Your task to perform on an android device: uninstall "Messages" Image 0: 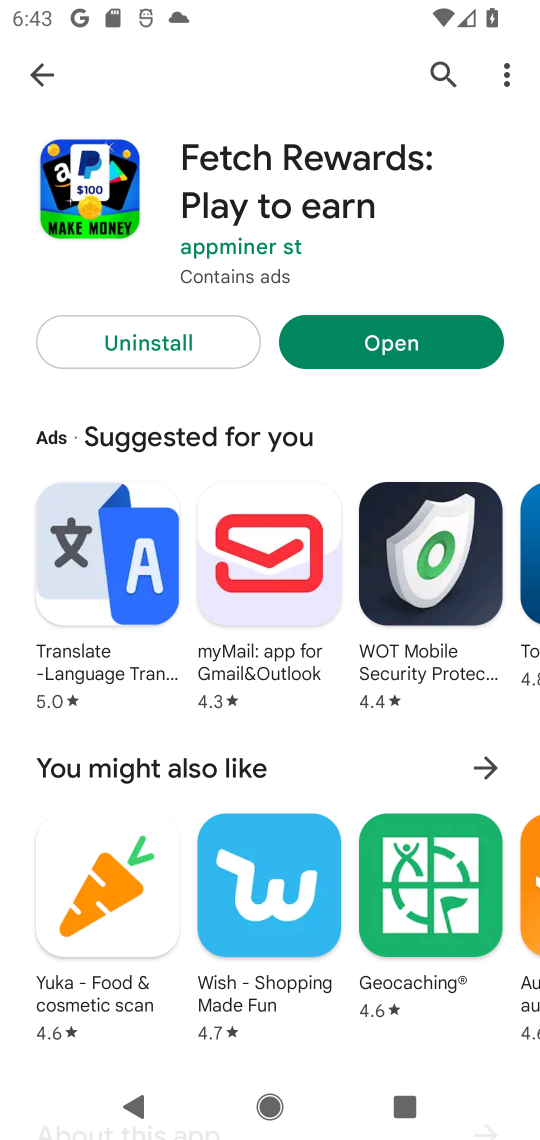
Step 0: press home button
Your task to perform on an android device: uninstall "Messages" Image 1: 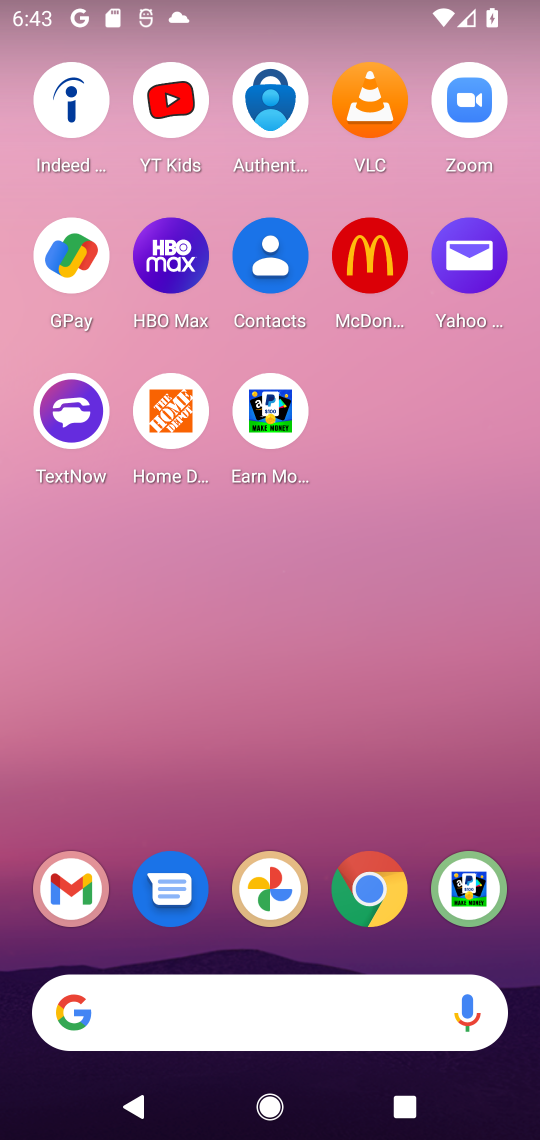
Step 1: press home button
Your task to perform on an android device: uninstall "Messages" Image 2: 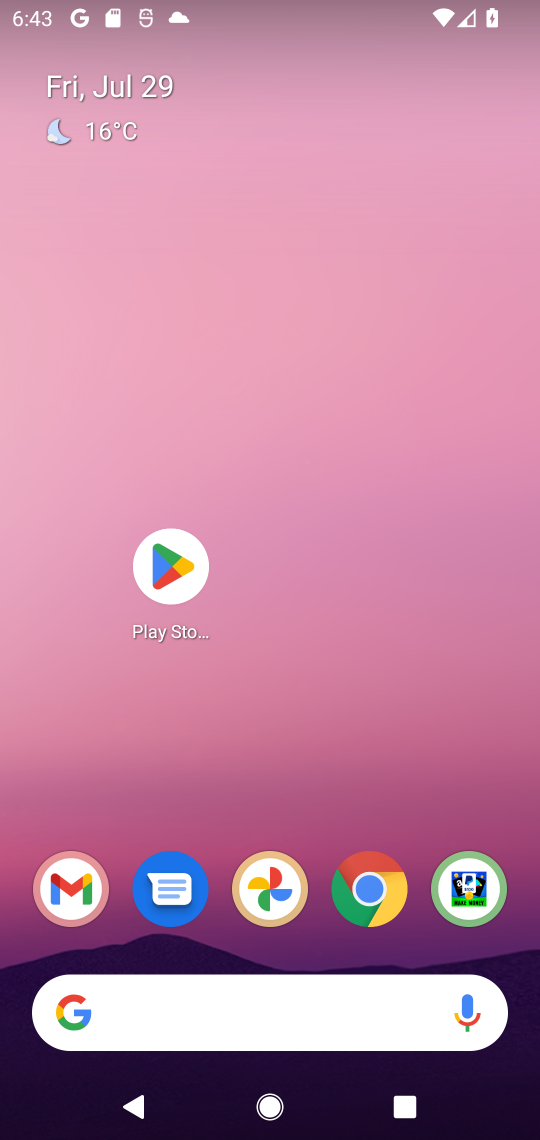
Step 2: click (147, 554)
Your task to perform on an android device: uninstall "Messages" Image 3: 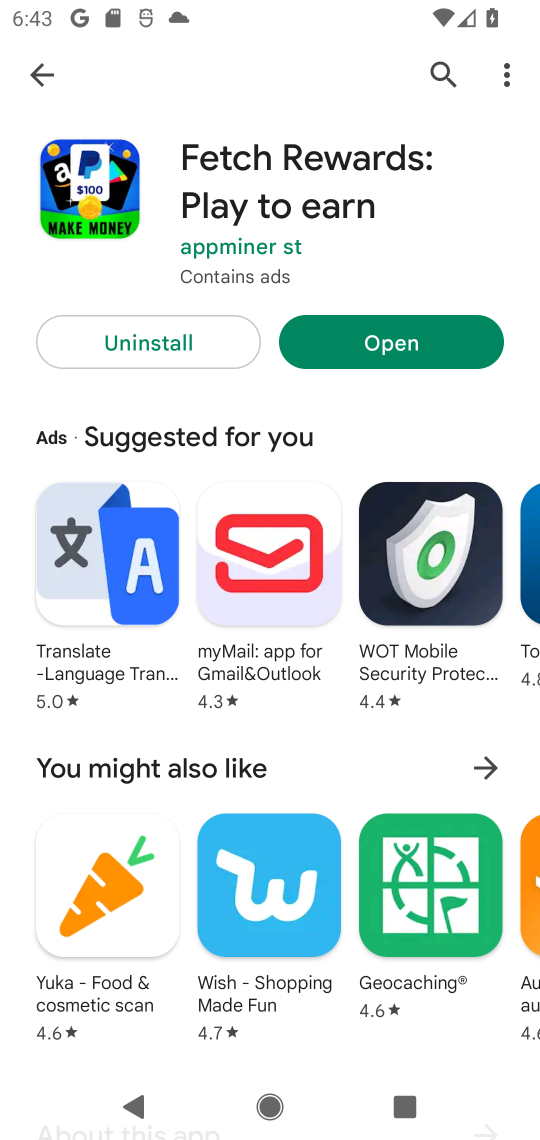
Step 3: click (434, 62)
Your task to perform on an android device: uninstall "Messages" Image 4: 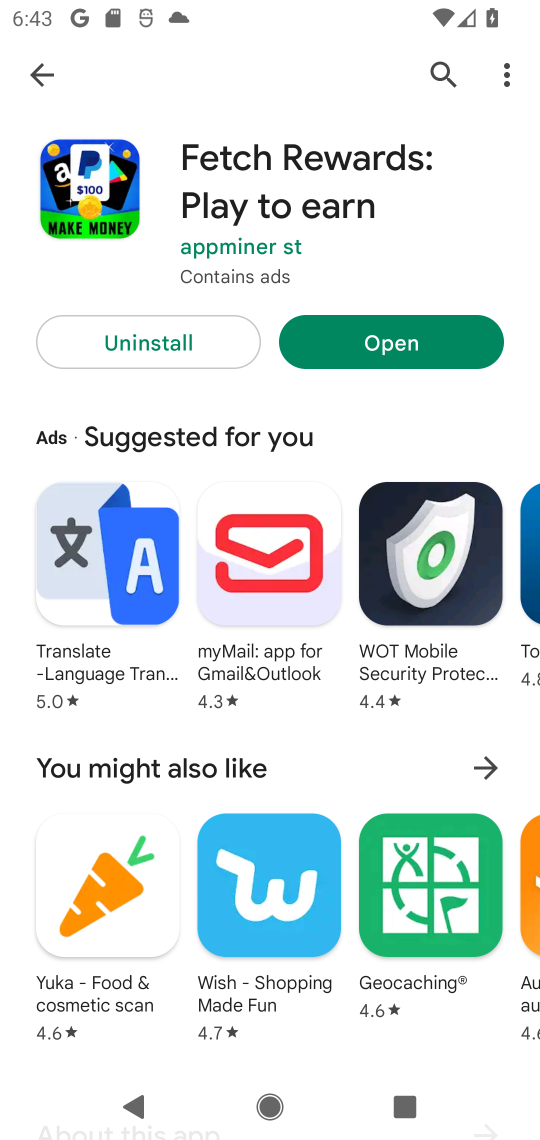
Step 4: click (442, 73)
Your task to perform on an android device: uninstall "Messages" Image 5: 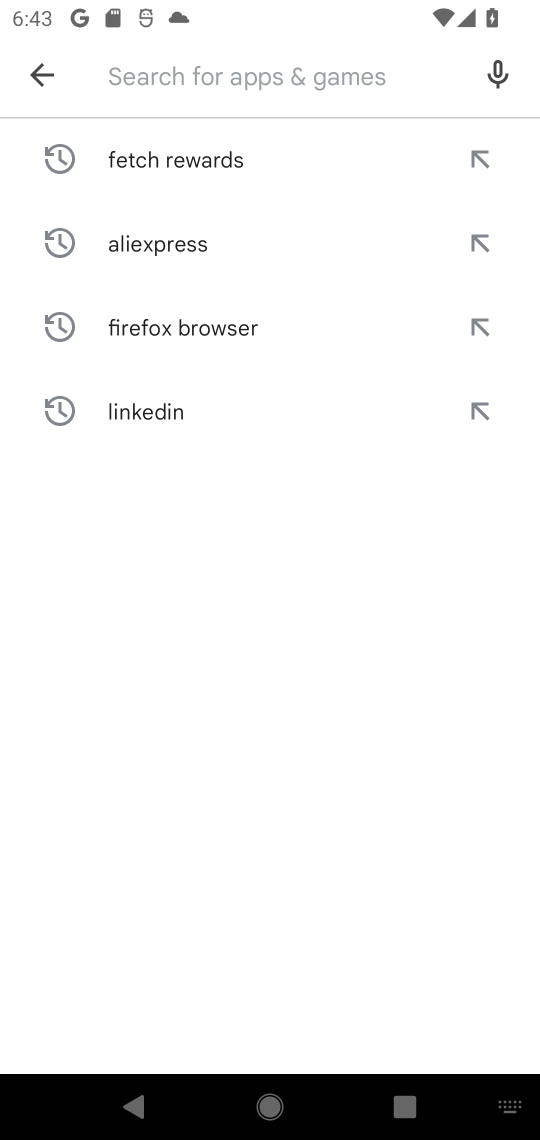
Step 5: type "Messages"
Your task to perform on an android device: uninstall "Messages" Image 6: 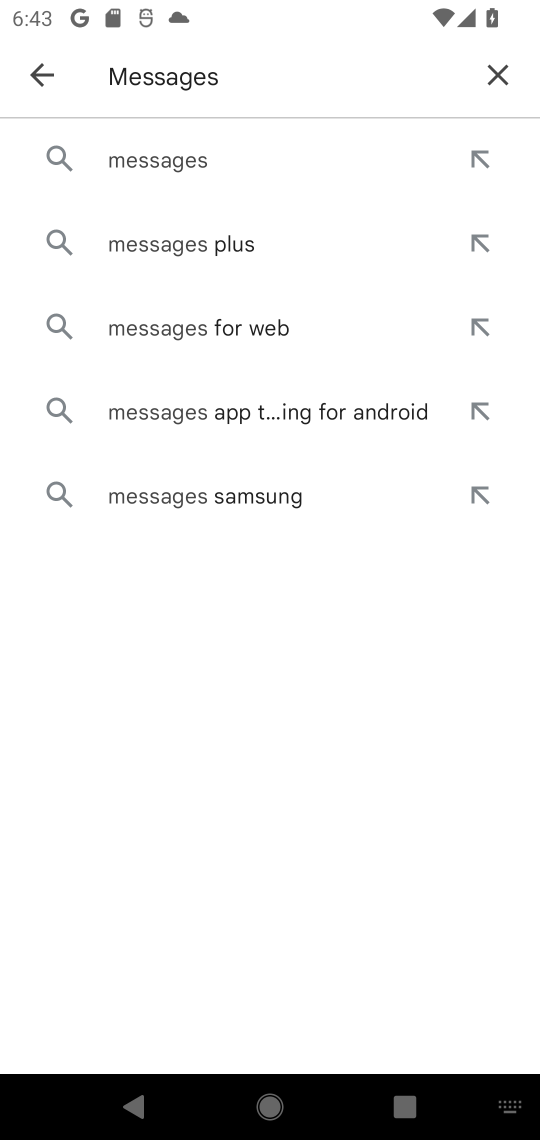
Step 6: click (166, 162)
Your task to perform on an android device: uninstall "Messages" Image 7: 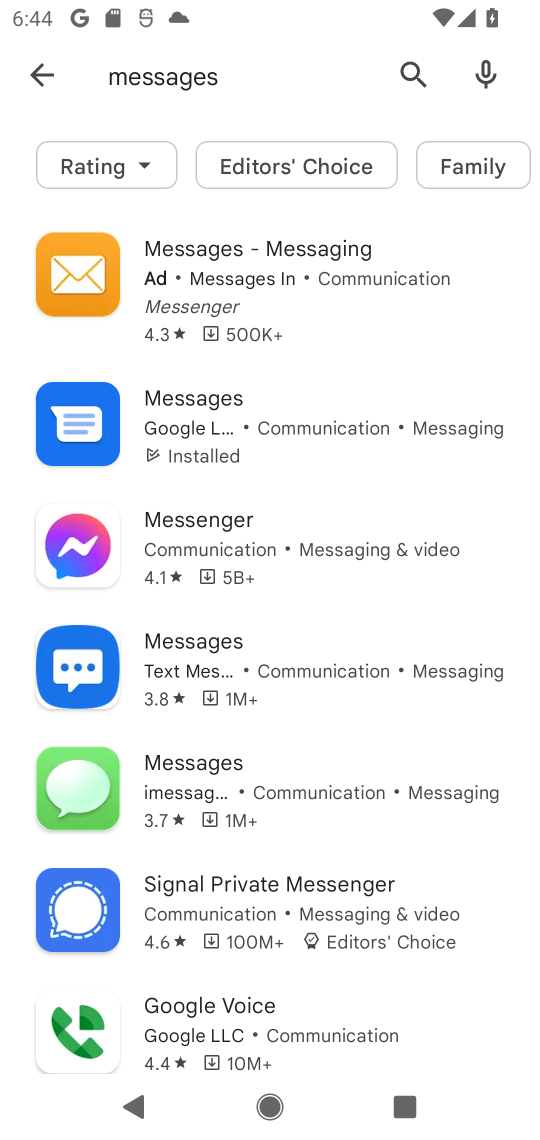
Step 7: click (284, 420)
Your task to perform on an android device: uninstall "Messages" Image 8: 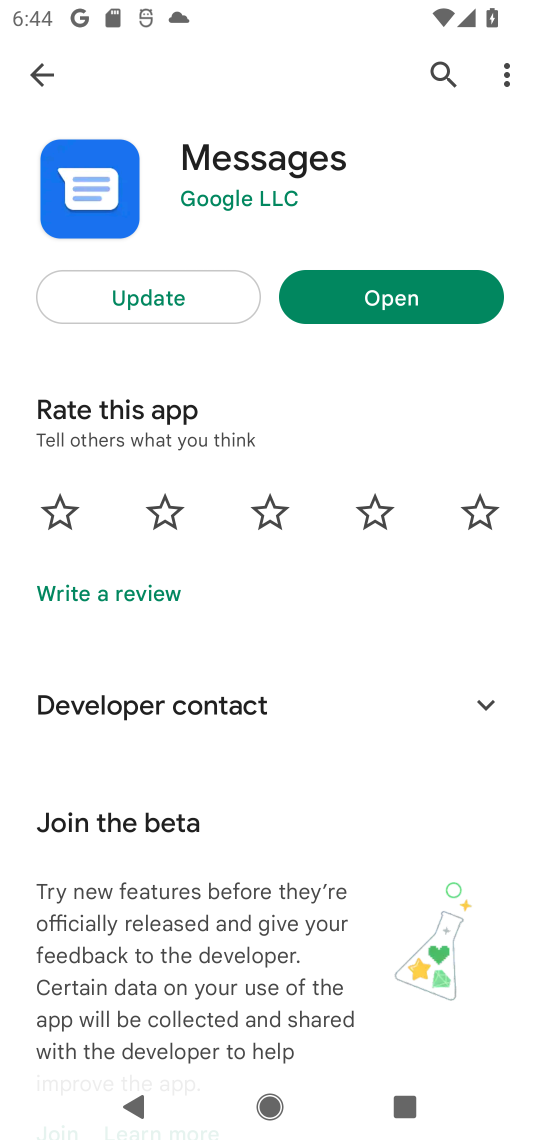
Step 8: task complete